Your task to perform on an android device: empty trash in the gmail app Image 0: 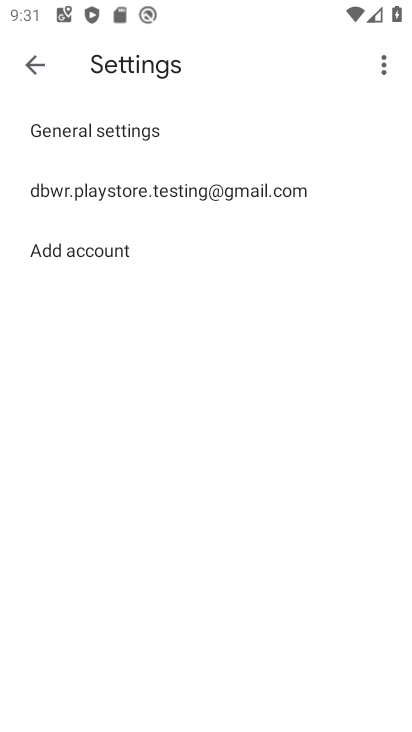
Step 0: press home button
Your task to perform on an android device: empty trash in the gmail app Image 1: 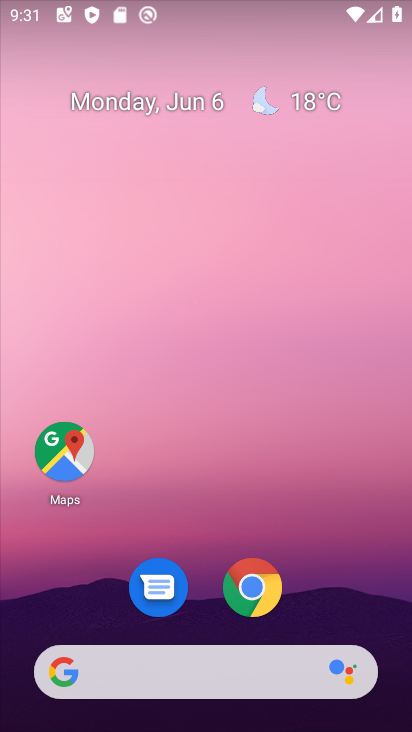
Step 1: drag from (308, 605) to (352, 185)
Your task to perform on an android device: empty trash in the gmail app Image 2: 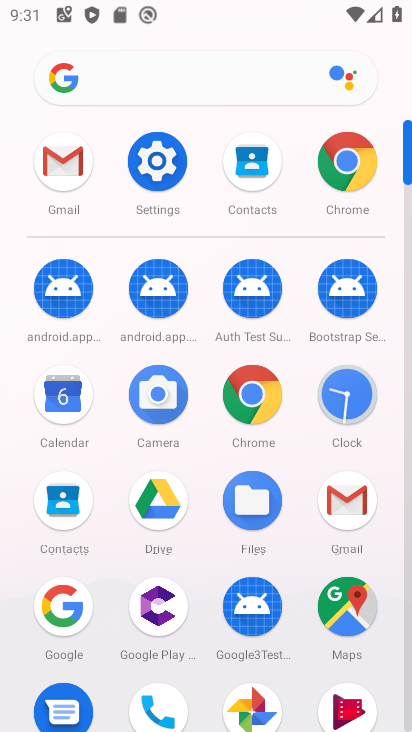
Step 2: click (58, 162)
Your task to perform on an android device: empty trash in the gmail app Image 3: 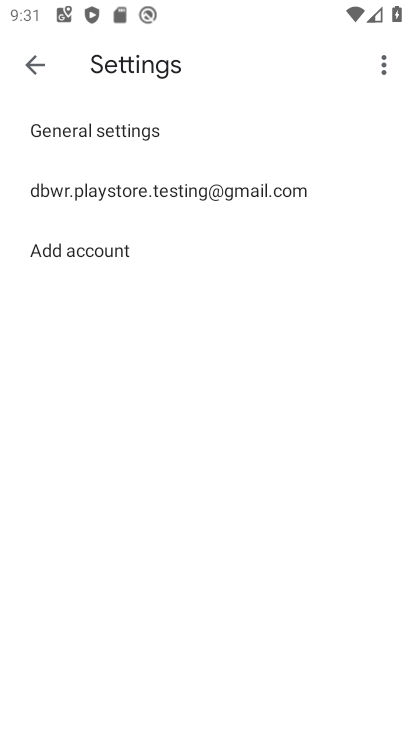
Step 3: click (29, 62)
Your task to perform on an android device: empty trash in the gmail app Image 4: 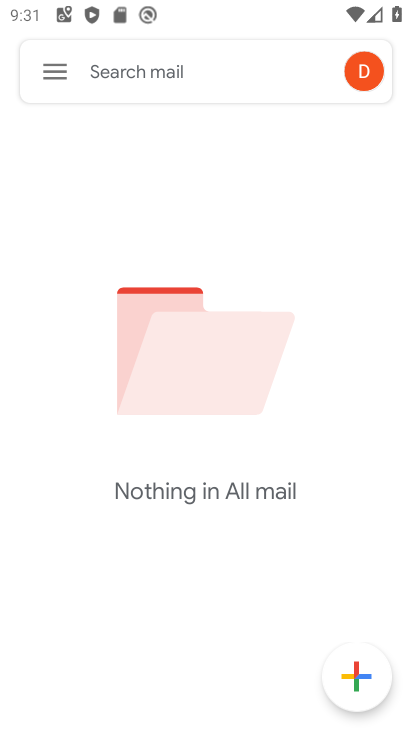
Step 4: click (52, 79)
Your task to perform on an android device: empty trash in the gmail app Image 5: 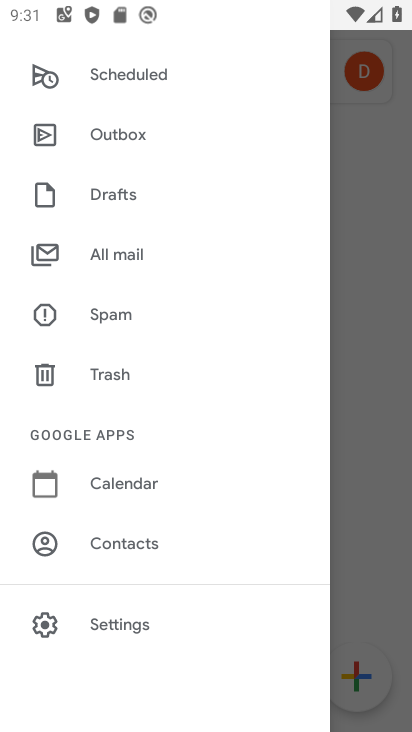
Step 5: click (71, 359)
Your task to perform on an android device: empty trash in the gmail app Image 6: 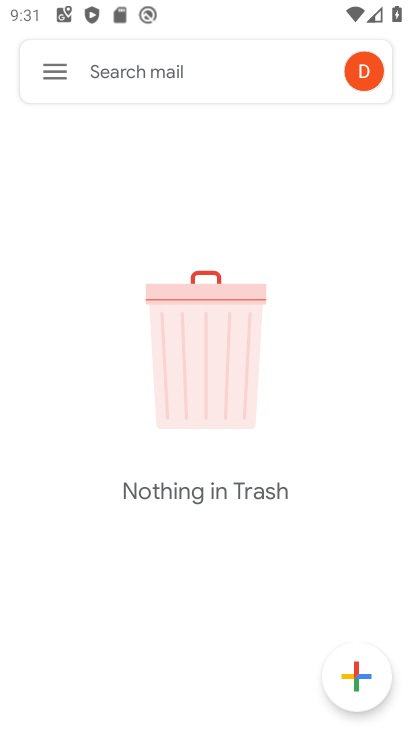
Step 6: task complete